Your task to perform on an android device: turn vacation reply on in the gmail app Image 0: 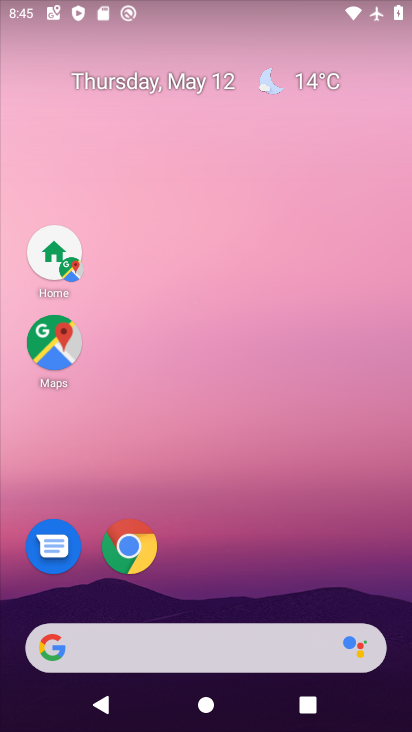
Step 0: drag from (222, 649) to (393, 133)
Your task to perform on an android device: turn vacation reply on in the gmail app Image 1: 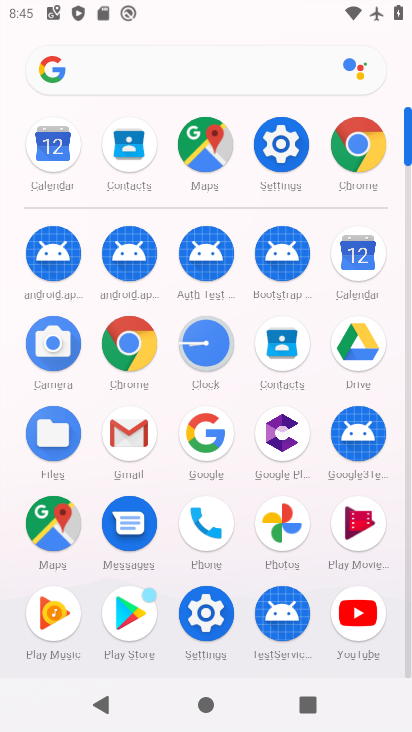
Step 1: click (131, 451)
Your task to perform on an android device: turn vacation reply on in the gmail app Image 2: 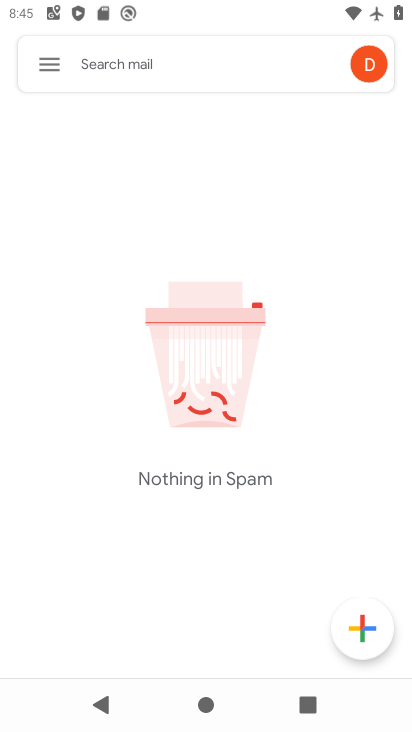
Step 2: click (58, 65)
Your task to perform on an android device: turn vacation reply on in the gmail app Image 3: 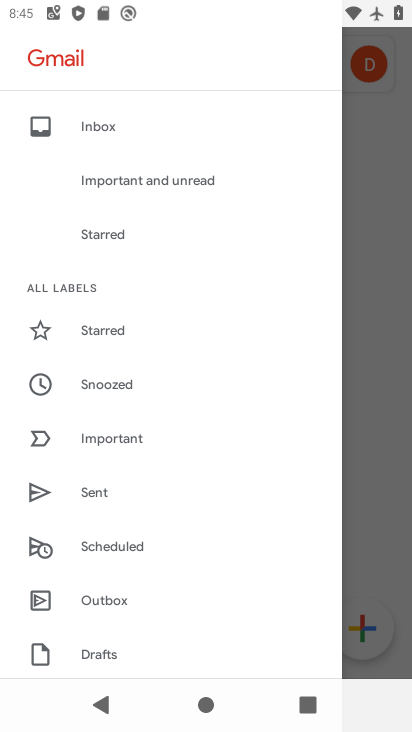
Step 3: drag from (208, 525) to (330, 11)
Your task to perform on an android device: turn vacation reply on in the gmail app Image 4: 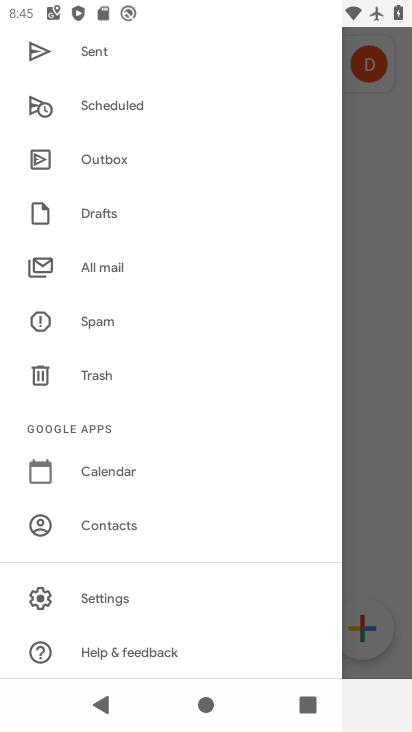
Step 4: click (117, 607)
Your task to perform on an android device: turn vacation reply on in the gmail app Image 5: 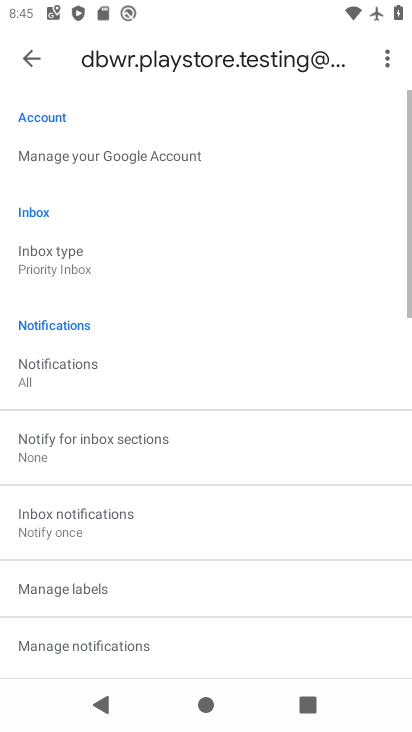
Step 5: drag from (158, 565) to (397, 320)
Your task to perform on an android device: turn vacation reply on in the gmail app Image 6: 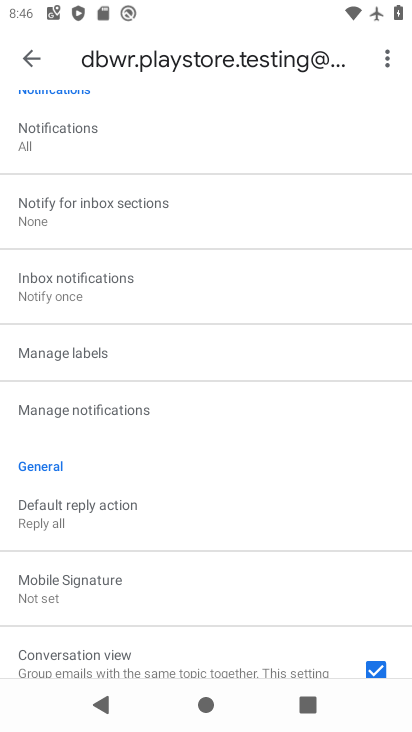
Step 6: drag from (128, 586) to (338, 64)
Your task to perform on an android device: turn vacation reply on in the gmail app Image 7: 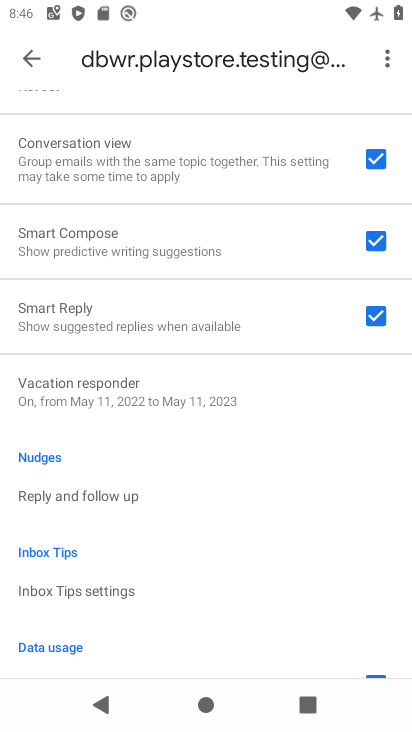
Step 7: click (168, 399)
Your task to perform on an android device: turn vacation reply on in the gmail app Image 8: 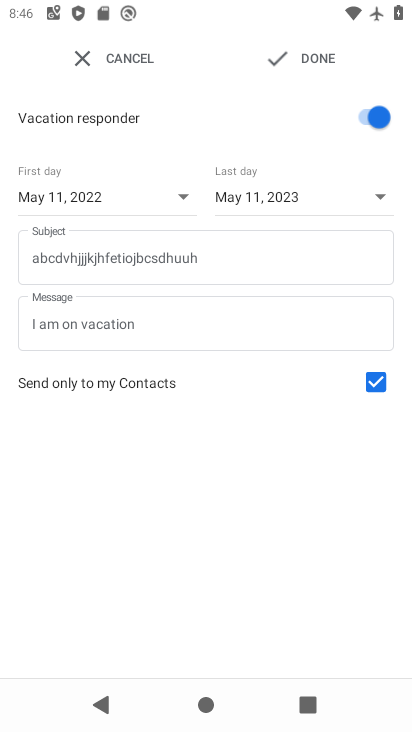
Step 8: task complete